Your task to perform on an android device: Go to privacy settings Image 0: 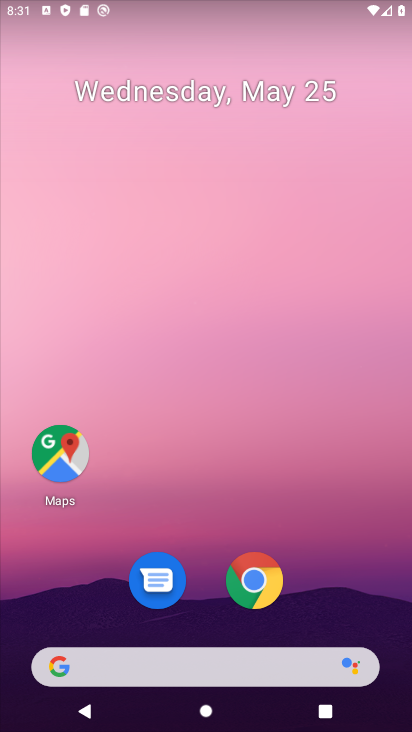
Step 0: drag from (60, 587) to (316, 108)
Your task to perform on an android device: Go to privacy settings Image 1: 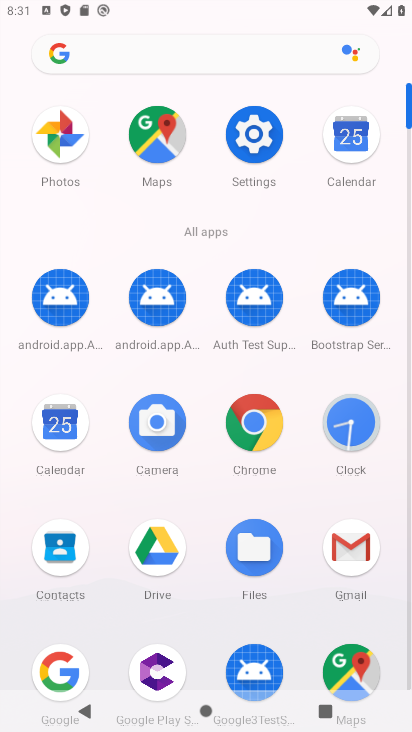
Step 1: click (263, 128)
Your task to perform on an android device: Go to privacy settings Image 2: 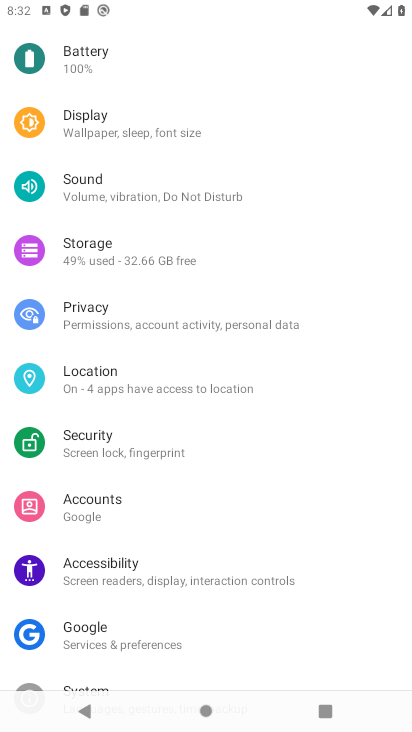
Step 2: drag from (124, 170) to (29, 613)
Your task to perform on an android device: Go to privacy settings Image 3: 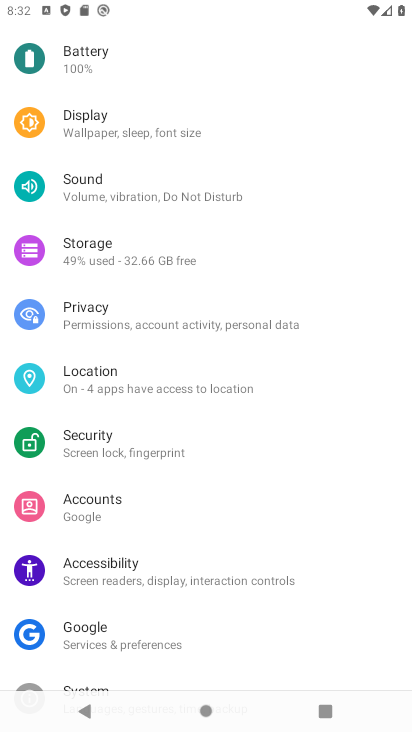
Step 3: drag from (79, 34) to (44, 578)
Your task to perform on an android device: Go to privacy settings Image 4: 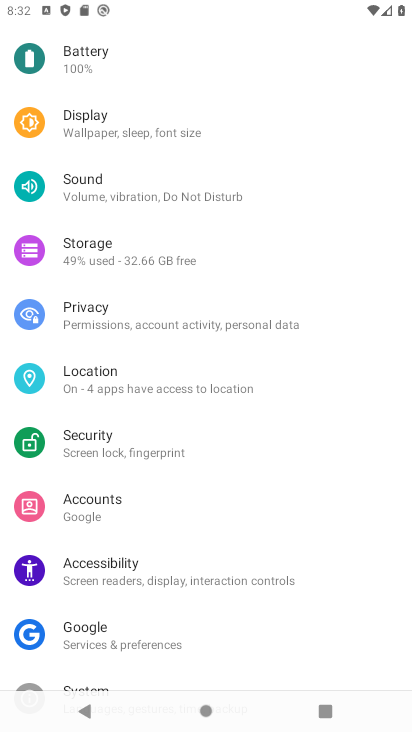
Step 4: drag from (241, 172) to (199, 591)
Your task to perform on an android device: Go to privacy settings Image 5: 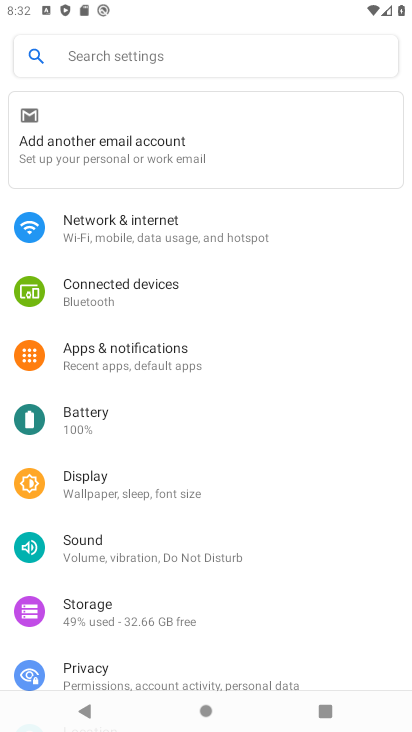
Step 5: click (124, 671)
Your task to perform on an android device: Go to privacy settings Image 6: 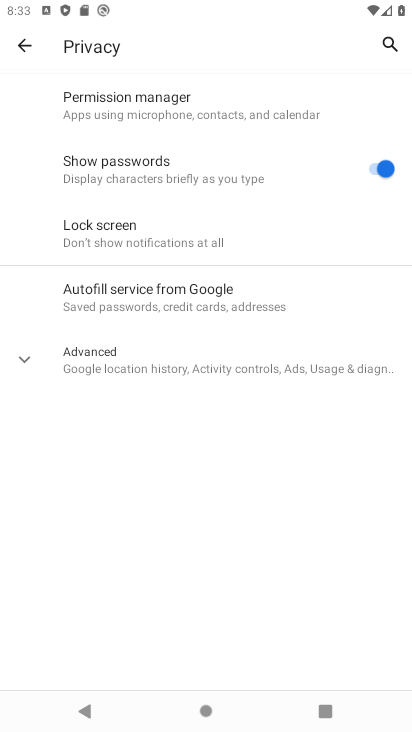
Step 6: task complete